Your task to perform on an android device: What is the news today? Image 0: 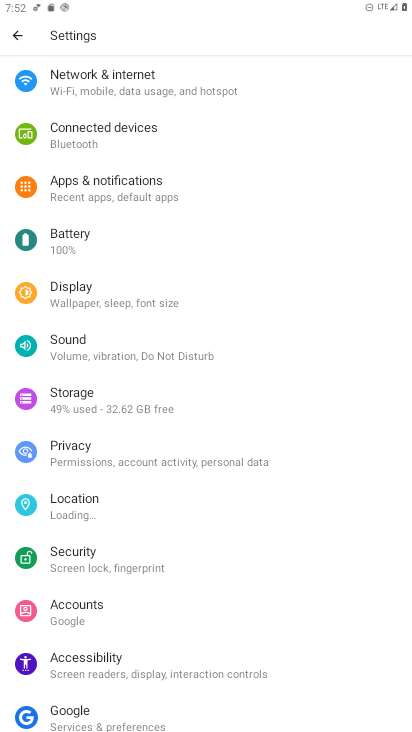
Step 0: press home button
Your task to perform on an android device: What is the news today? Image 1: 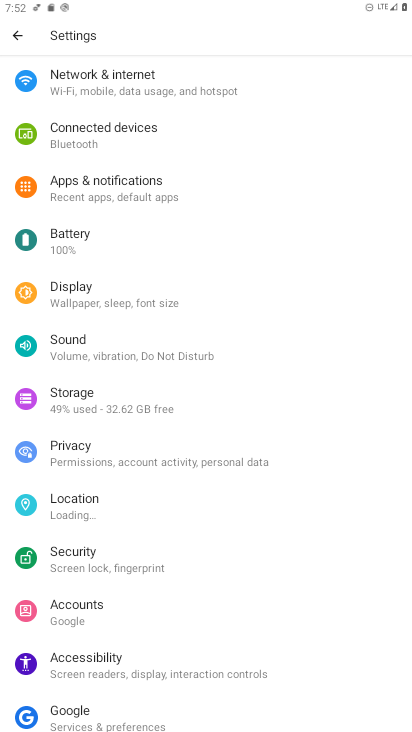
Step 1: press home button
Your task to perform on an android device: What is the news today? Image 2: 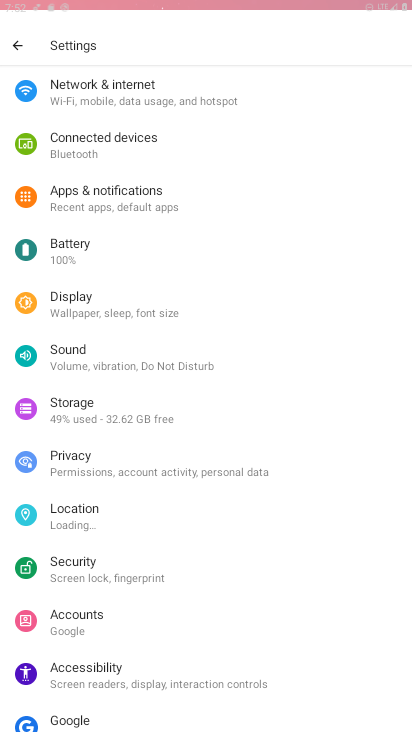
Step 2: drag from (189, 654) to (165, 182)
Your task to perform on an android device: What is the news today? Image 3: 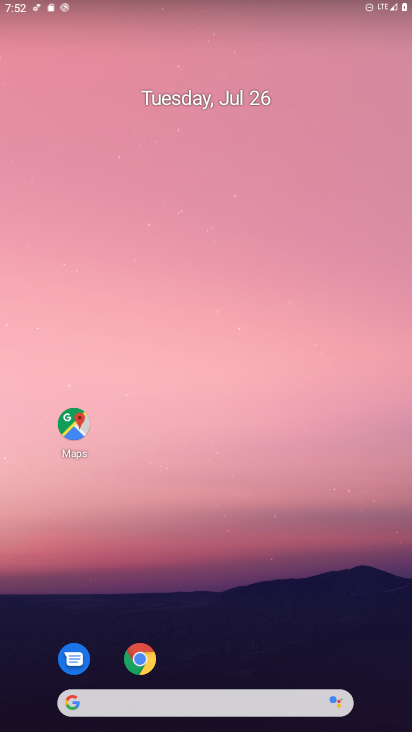
Step 3: drag from (207, 651) to (262, 112)
Your task to perform on an android device: What is the news today? Image 4: 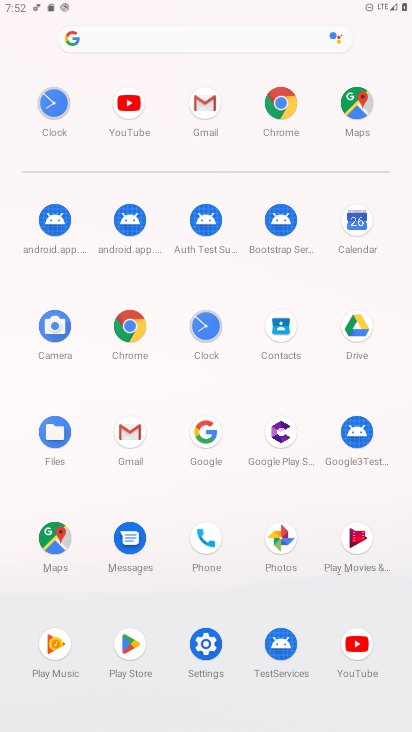
Step 4: click (150, 41)
Your task to perform on an android device: What is the news today? Image 5: 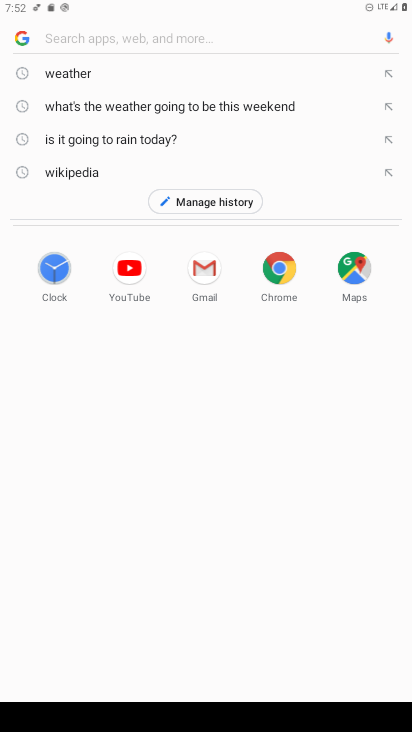
Step 5: type "news today"
Your task to perform on an android device: What is the news today? Image 6: 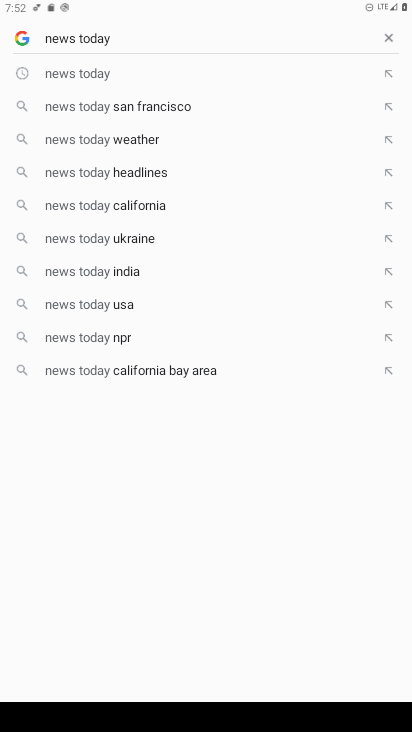
Step 6: click (85, 76)
Your task to perform on an android device: What is the news today? Image 7: 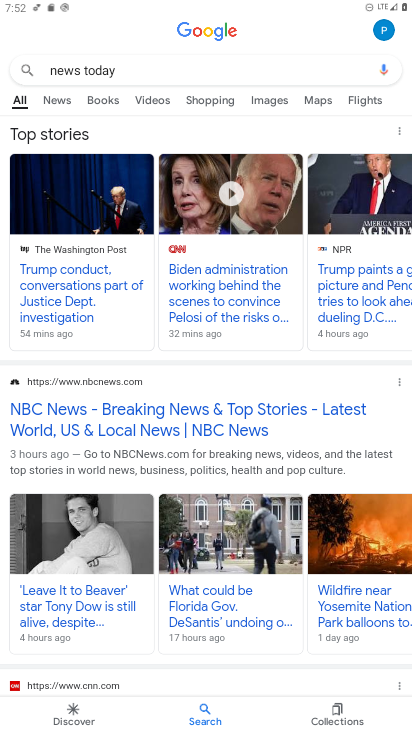
Step 7: task complete